Your task to perform on an android device: Search for "panasonic triple a" on amazon.com, select the first entry, add it to the cart, then select checkout. Image 0: 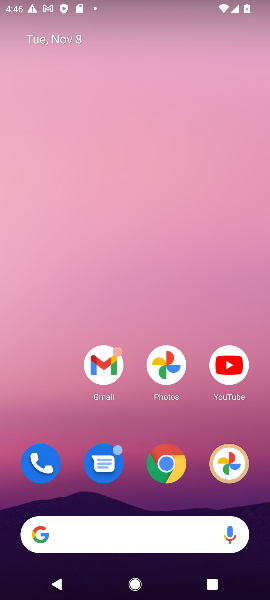
Step 0: click (159, 473)
Your task to perform on an android device: Search for "panasonic triple a" on amazon.com, select the first entry, add it to the cart, then select checkout. Image 1: 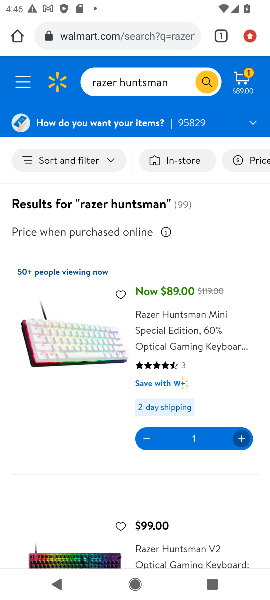
Step 1: click (151, 37)
Your task to perform on an android device: Search for "panasonic triple a" on amazon.com, select the first entry, add it to the cart, then select checkout. Image 2: 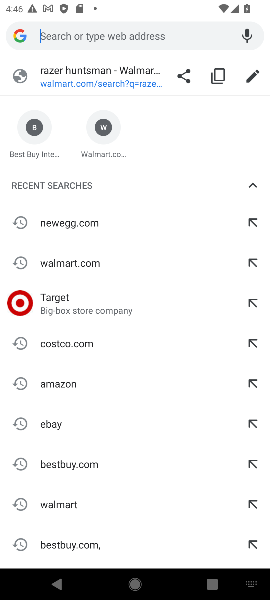
Step 2: click (59, 379)
Your task to perform on an android device: Search for "panasonic triple a" on amazon.com, select the first entry, add it to the cart, then select checkout. Image 3: 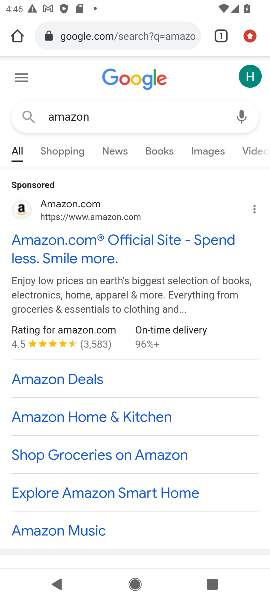
Step 3: click (87, 241)
Your task to perform on an android device: Search for "panasonic triple a" on amazon.com, select the first entry, add it to the cart, then select checkout. Image 4: 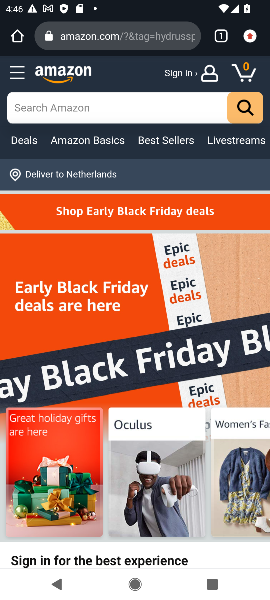
Step 4: click (80, 115)
Your task to perform on an android device: Search for "panasonic triple a" on amazon.com, select the first entry, add it to the cart, then select checkout. Image 5: 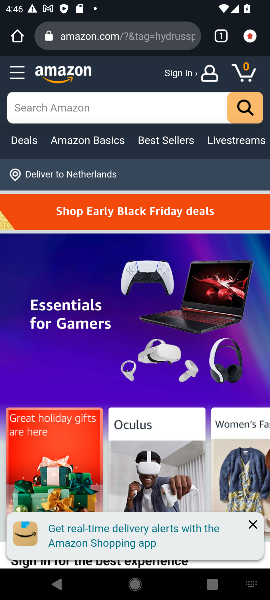
Step 5: type "panasonic triple a"
Your task to perform on an android device: Search for "panasonic triple a" on amazon.com, select the first entry, add it to the cart, then select checkout. Image 6: 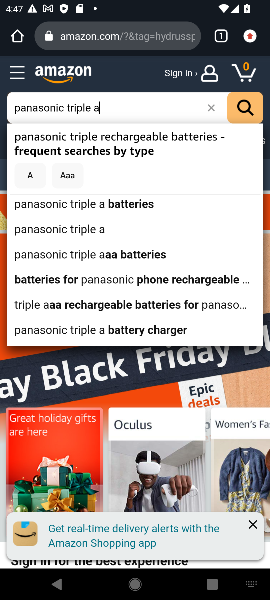
Step 6: click (251, 98)
Your task to perform on an android device: Search for "panasonic triple a" on amazon.com, select the first entry, add it to the cart, then select checkout. Image 7: 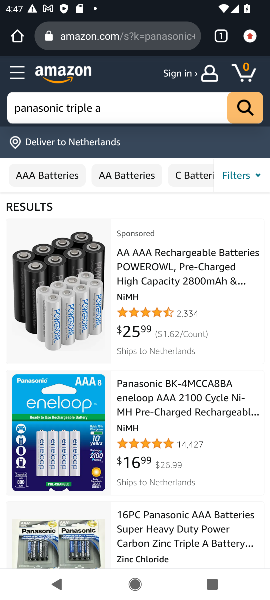
Step 7: click (149, 516)
Your task to perform on an android device: Search for "panasonic triple a" on amazon.com, select the first entry, add it to the cart, then select checkout. Image 8: 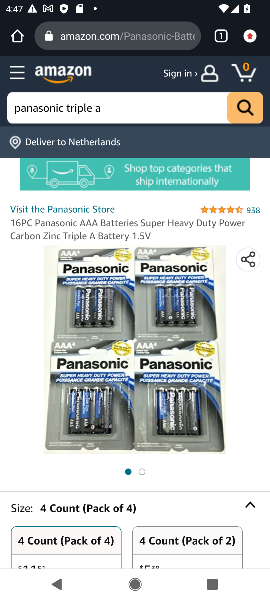
Step 8: drag from (149, 516) to (241, 199)
Your task to perform on an android device: Search for "panasonic triple a" on amazon.com, select the first entry, add it to the cart, then select checkout. Image 9: 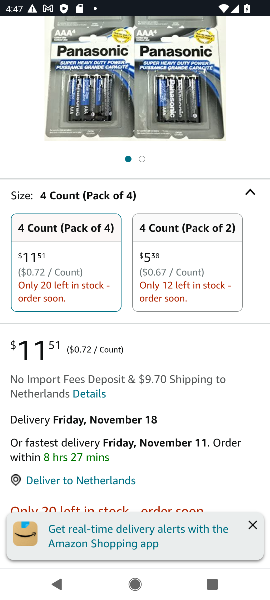
Step 9: drag from (137, 470) to (255, 104)
Your task to perform on an android device: Search for "panasonic triple a" on amazon.com, select the first entry, add it to the cart, then select checkout. Image 10: 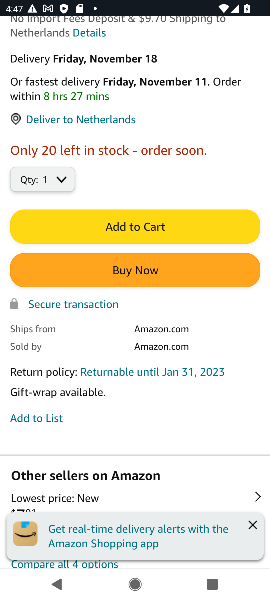
Step 10: click (116, 222)
Your task to perform on an android device: Search for "panasonic triple a" on amazon.com, select the first entry, add it to the cart, then select checkout. Image 11: 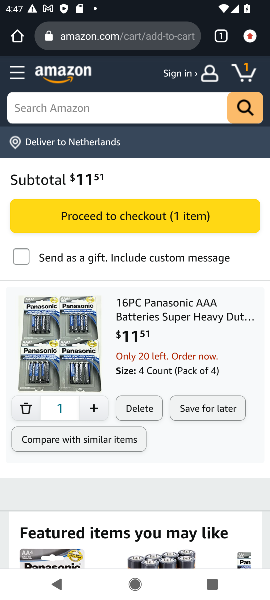
Step 11: click (116, 222)
Your task to perform on an android device: Search for "panasonic triple a" on amazon.com, select the first entry, add it to the cart, then select checkout. Image 12: 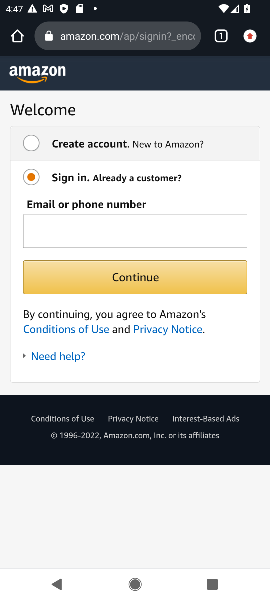
Step 12: task complete